Your task to perform on an android device: clear all cookies in the chrome app Image 0: 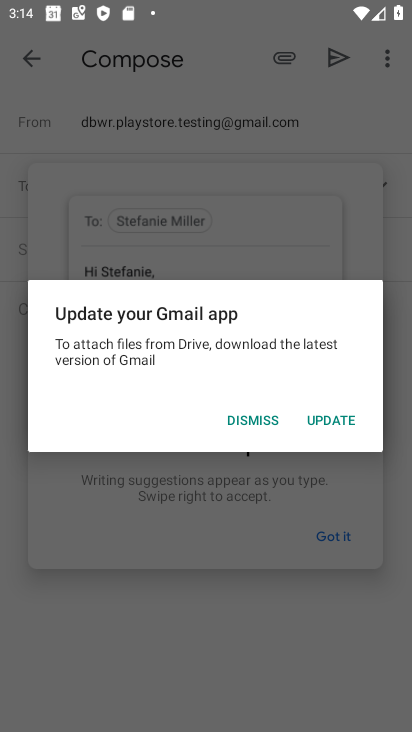
Step 0: press back button
Your task to perform on an android device: clear all cookies in the chrome app Image 1: 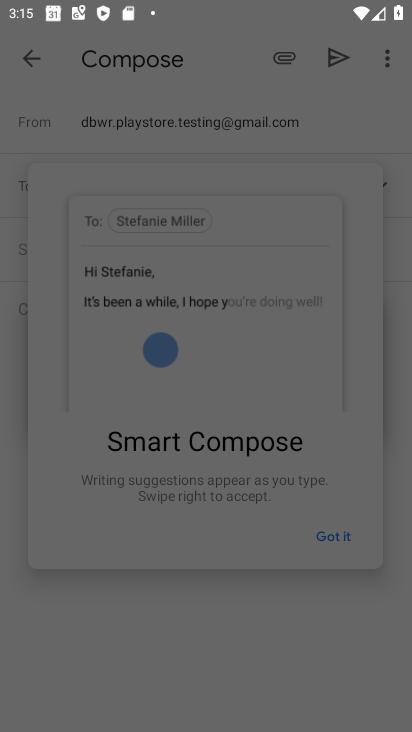
Step 1: press back button
Your task to perform on an android device: clear all cookies in the chrome app Image 2: 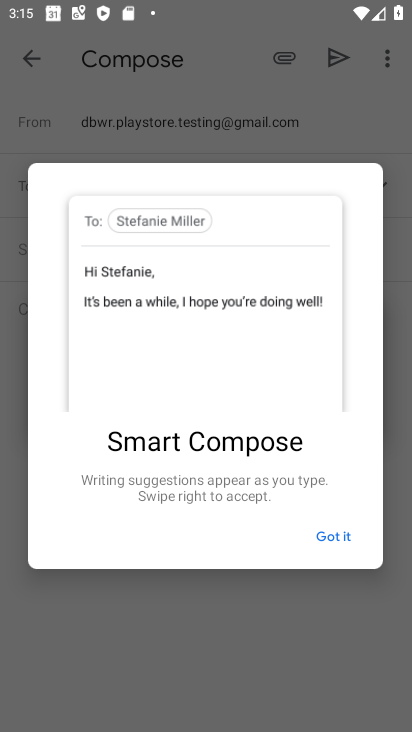
Step 2: press home button
Your task to perform on an android device: clear all cookies in the chrome app Image 3: 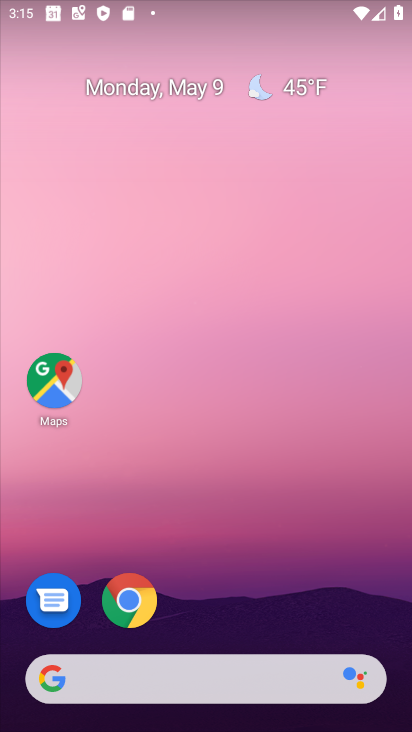
Step 3: drag from (261, 599) to (252, 12)
Your task to perform on an android device: clear all cookies in the chrome app Image 4: 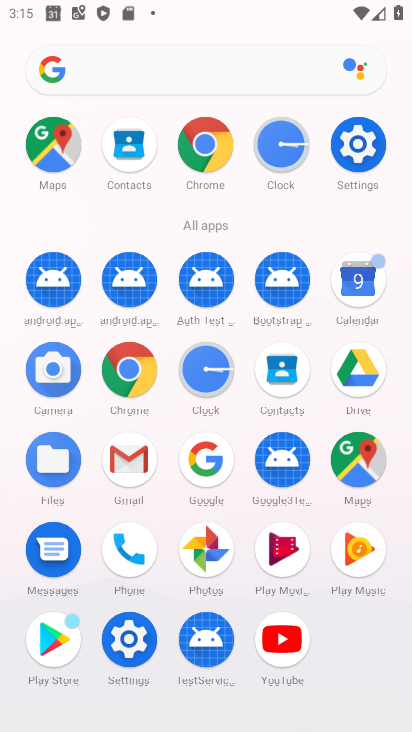
Step 4: drag from (6, 490) to (2, 188)
Your task to perform on an android device: clear all cookies in the chrome app Image 5: 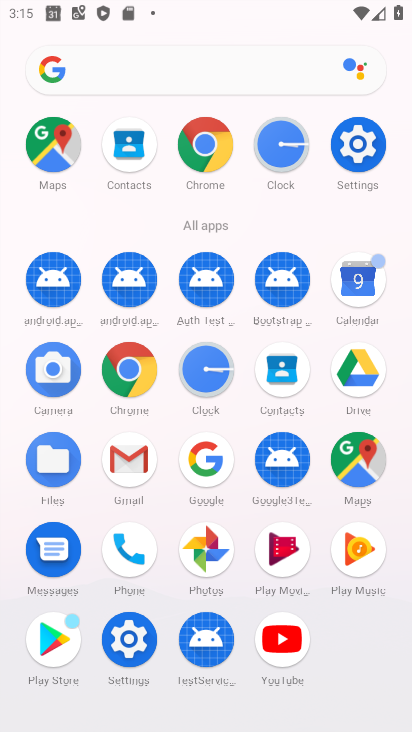
Step 5: drag from (4, 534) to (3, 267)
Your task to perform on an android device: clear all cookies in the chrome app Image 6: 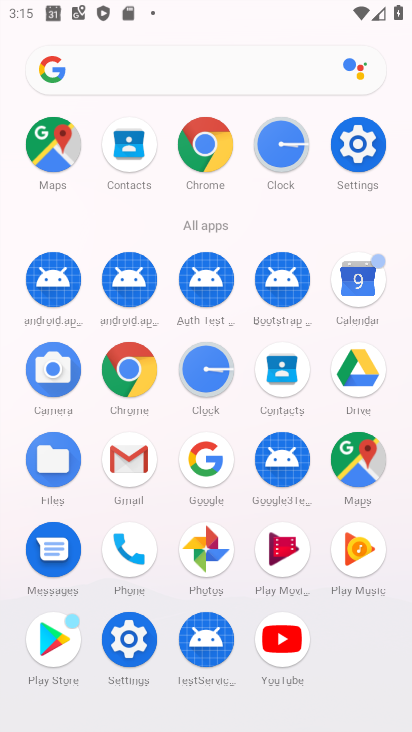
Step 6: click (210, 147)
Your task to perform on an android device: clear all cookies in the chrome app Image 7: 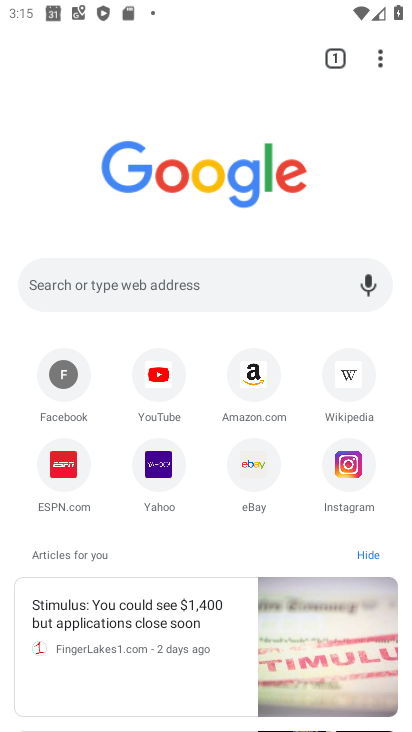
Step 7: drag from (373, 52) to (156, 486)
Your task to perform on an android device: clear all cookies in the chrome app Image 8: 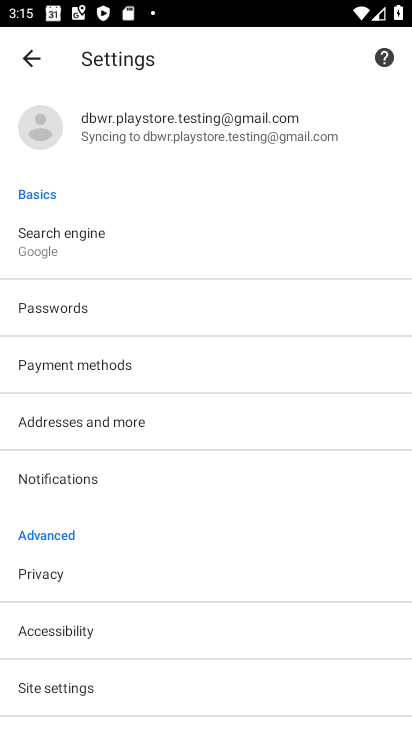
Step 8: click (107, 577)
Your task to perform on an android device: clear all cookies in the chrome app Image 9: 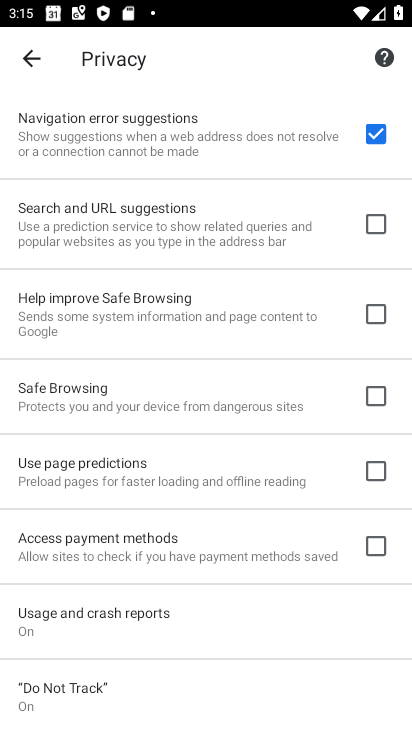
Step 9: drag from (110, 575) to (190, 165)
Your task to perform on an android device: clear all cookies in the chrome app Image 10: 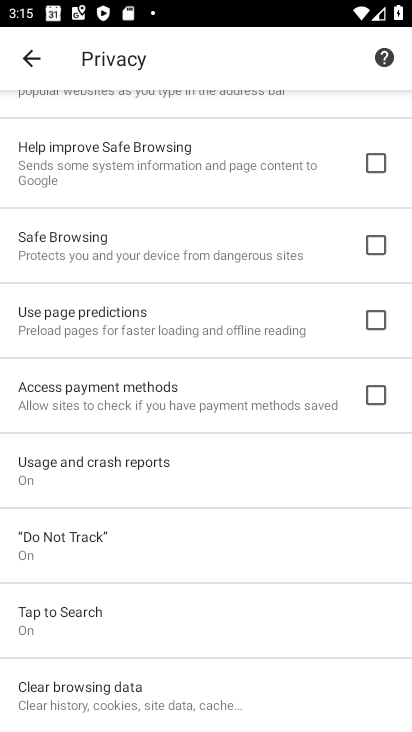
Step 10: drag from (199, 550) to (240, 65)
Your task to perform on an android device: clear all cookies in the chrome app Image 11: 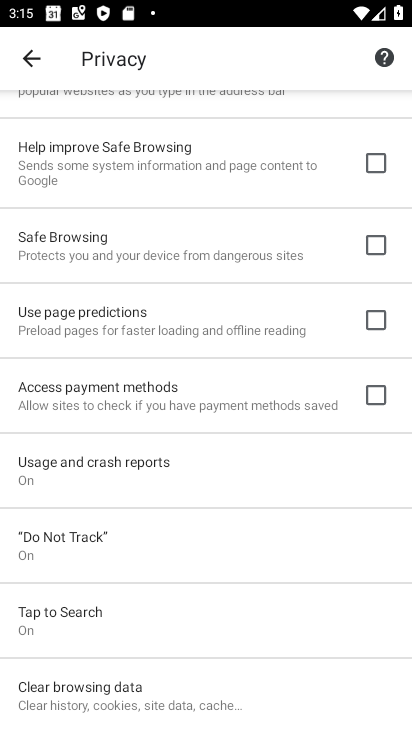
Step 11: drag from (166, 627) to (168, 324)
Your task to perform on an android device: clear all cookies in the chrome app Image 12: 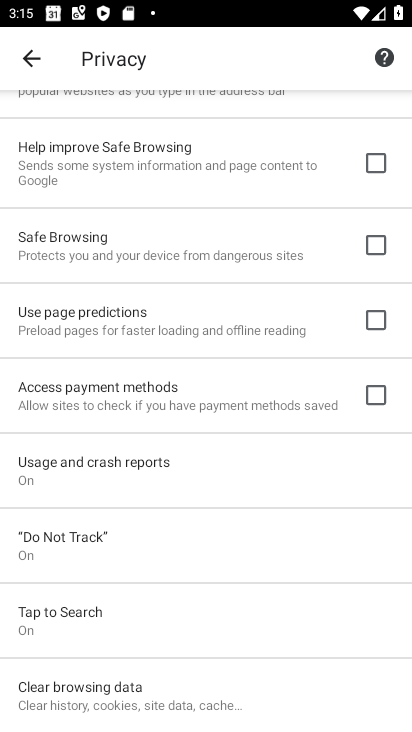
Step 12: click (128, 695)
Your task to perform on an android device: clear all cookies in the chrome app Image 13: 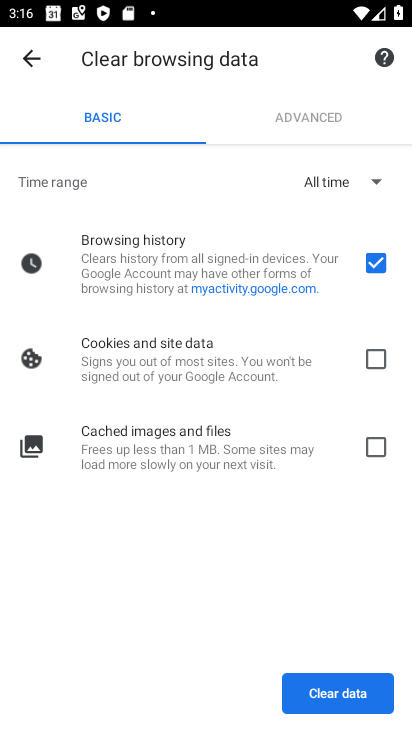
Step 13: click (372, 358)
Your task to perform on an android device: clear all cookies in the chrome app Image 14: 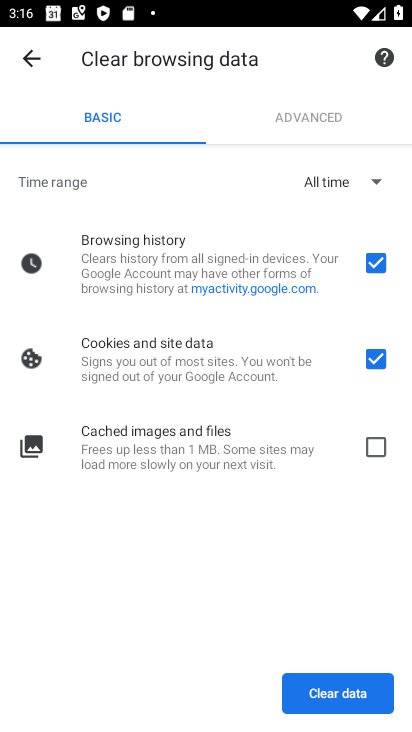
Step 14: click (368, 259)
Your task to perform on an android device: clear all cookies in the chrome app Image 15: 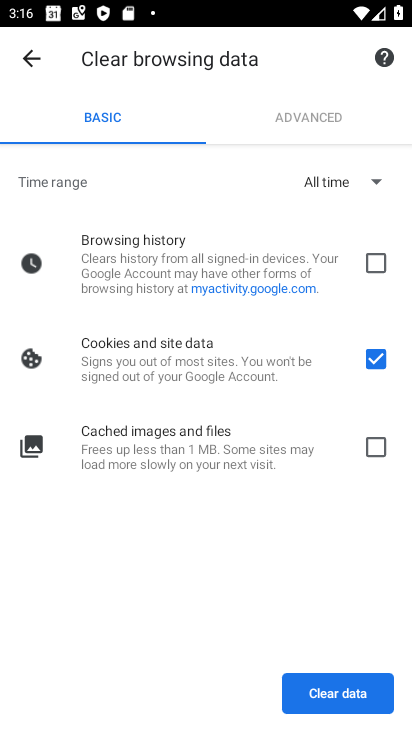
Step 15: click (355, 696)
Your task to perform on an android device: clear all cookies in the chrome app Image 16: 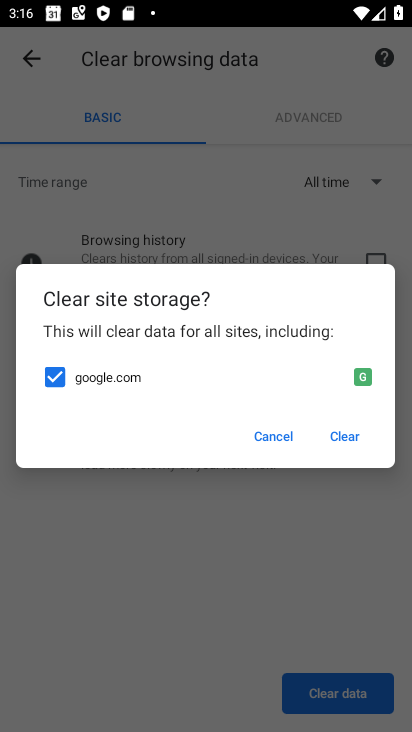
Step 16: click (353, 439)
Your task to perform on an android device: clear all cookies in the chrome app Image 17: 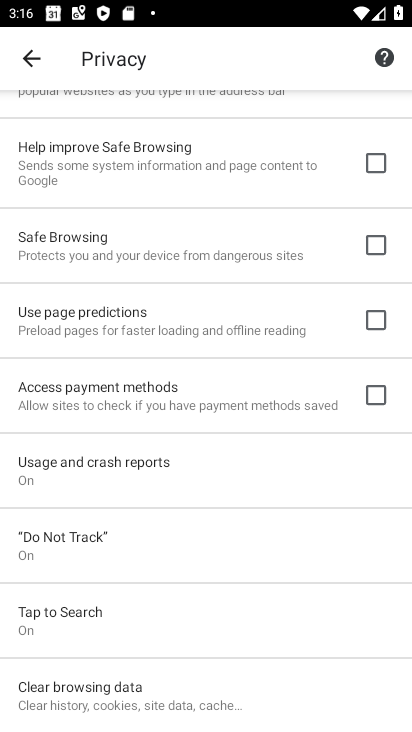
Step 17: drag from (253, 480) to (211, 134)
Your task to perform on an android device: clear all cookies in the chrome app Image 18: 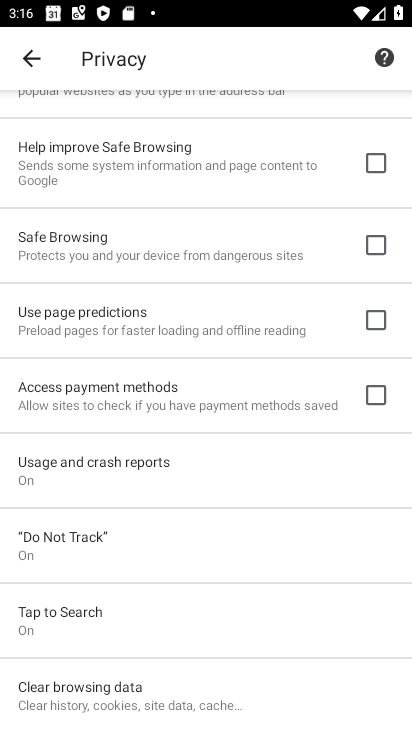
Step 18: drag from (170, 556) to (225, 145)
Your task to perform on an android device: clear all cookies in the chrome app Image 19: 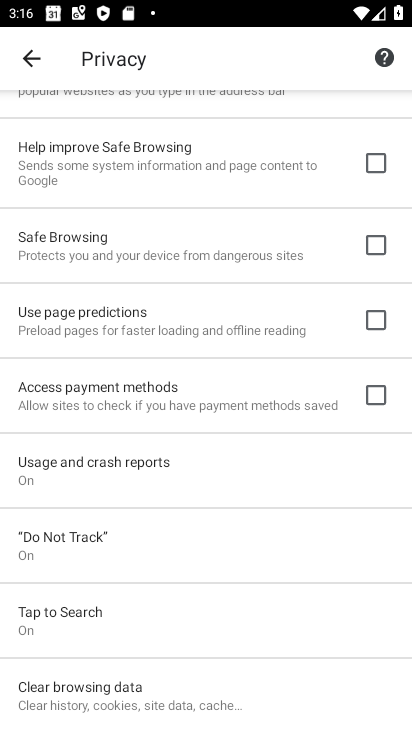
Step 19: drag from (251, 268) to (251, 640)
Your task to perform on an android device: clear all cookies in the chrome app Image 20: 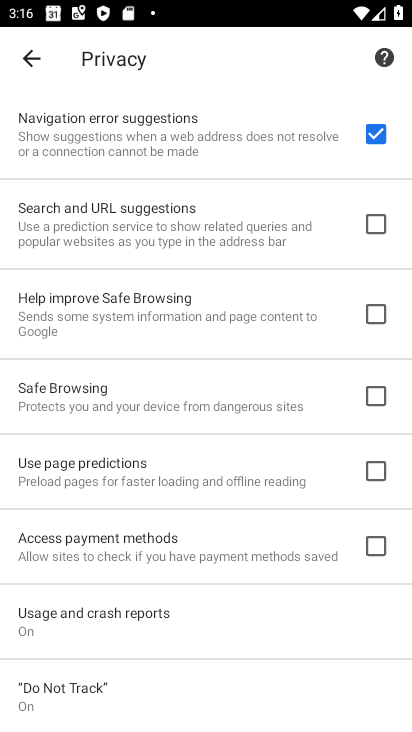
Step 20: drag from (238, 648) to (230, 139)
Your task to perform on an android device: clear all cookies in the chrome app Image 21: 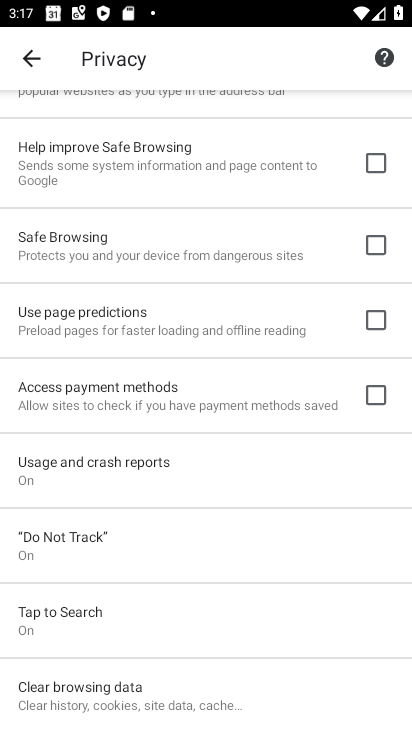
Step 21: click (162, 697)
Your task to perform on an android device: clear all cookies in the chrome app Image 22: 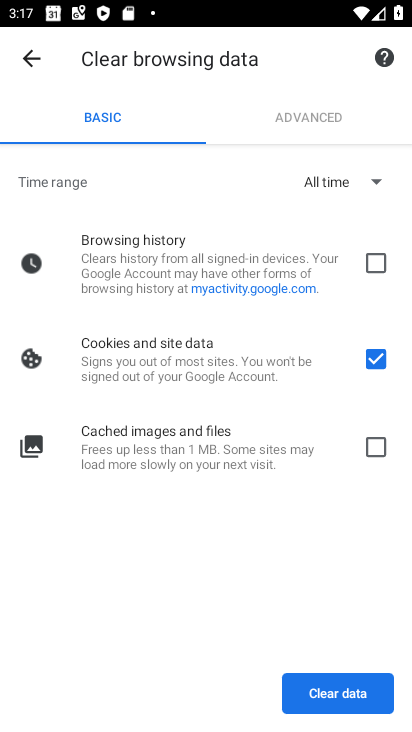
Step 22: click (361, 691)
Your task to perform on an android device: clear all cookies in the chrome app Image 23: 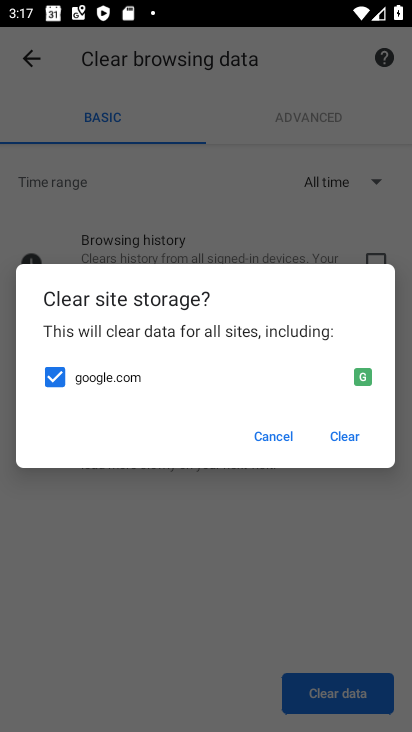
Step 23: click (345, 442)
Your task to perform on an android device: clear all cookies in the chrome app Image 24: 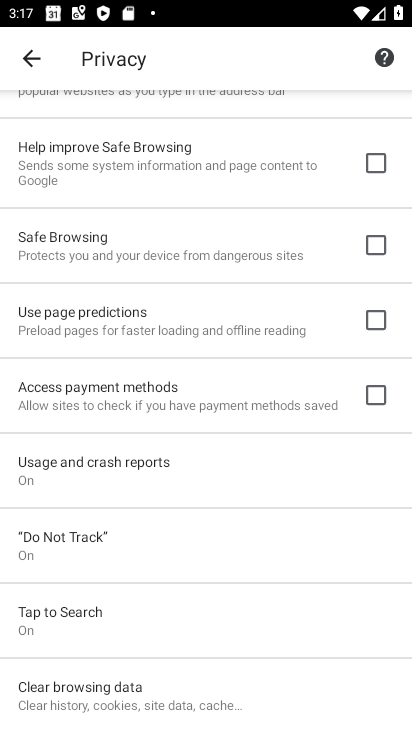
Step 24: task complete